Your task to perform on an android device: What's the weather? Image 0: 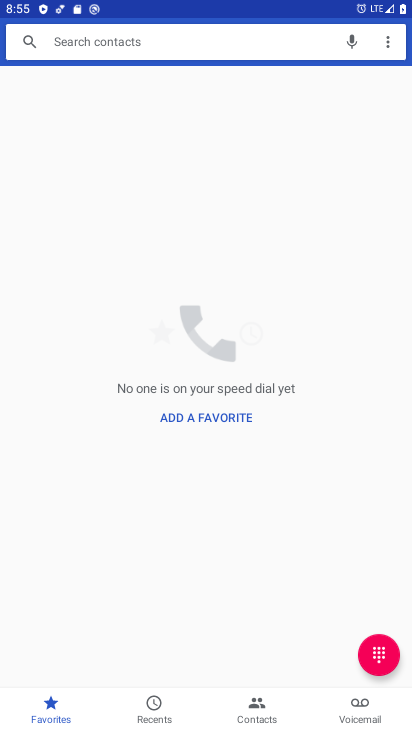
Step 0: press home button
Your task to perform on an android device: What's the weather? Image 1: 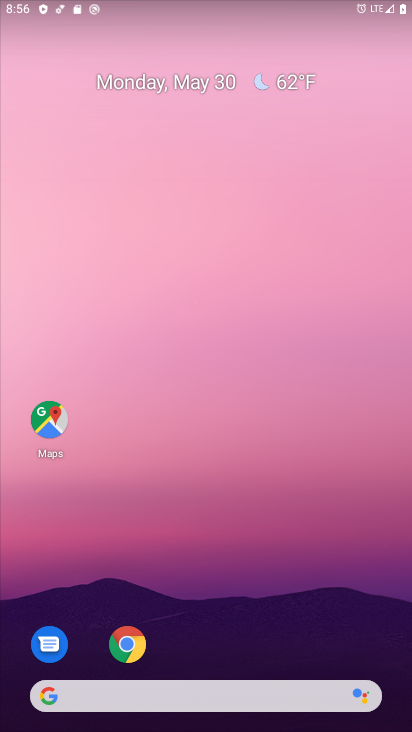
Step 1: click (287, 86)
Your task to perform on an android device: What's the weather? Image 2: 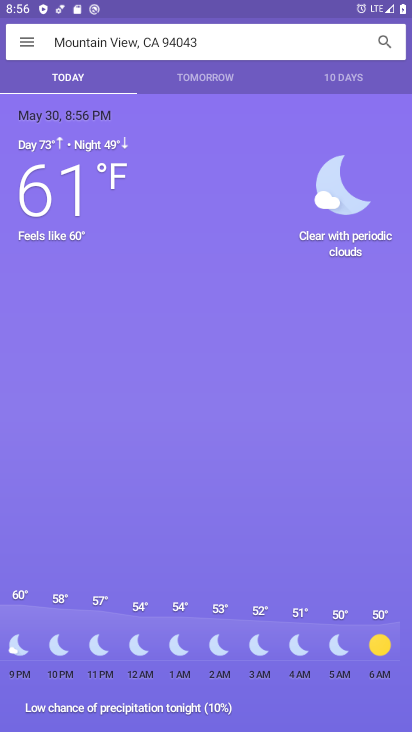
Step 2: task complete